Your task to perform on an android device: Is it going to rain tomorrow? Image 0: 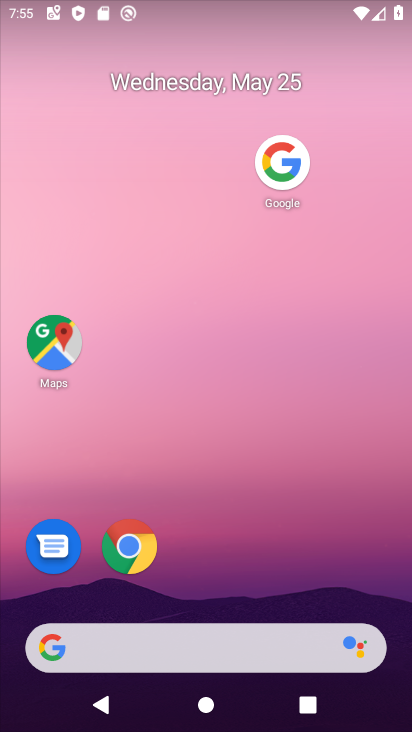
Step 0: click (61, 649)
Your task to perform on an android device: Is it going to rain tomorrow? Image 1: 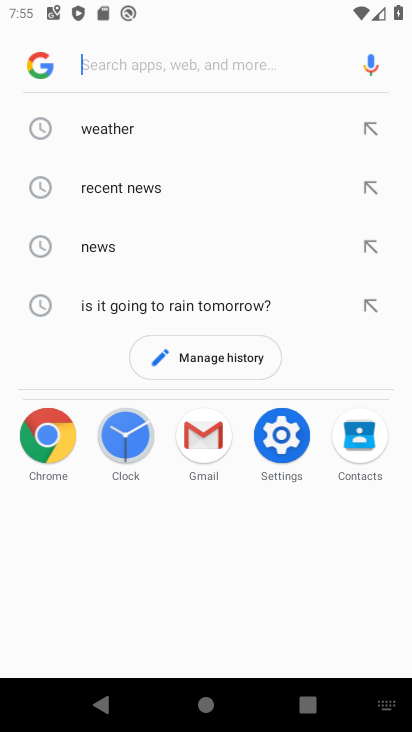
Step 1: click (107, 126)
Your task to perform on an android device: Is it going to rain tomorrow? Image 2: 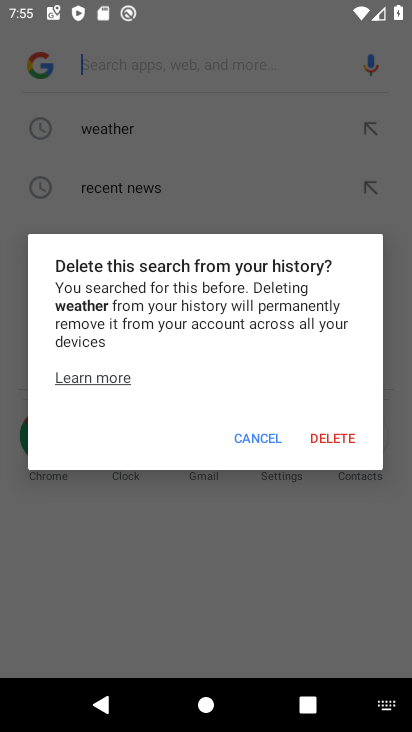
Step 2: click (141, 123)
Your task to perform on an android device: Is it going to rain tomorrow? Image 3: 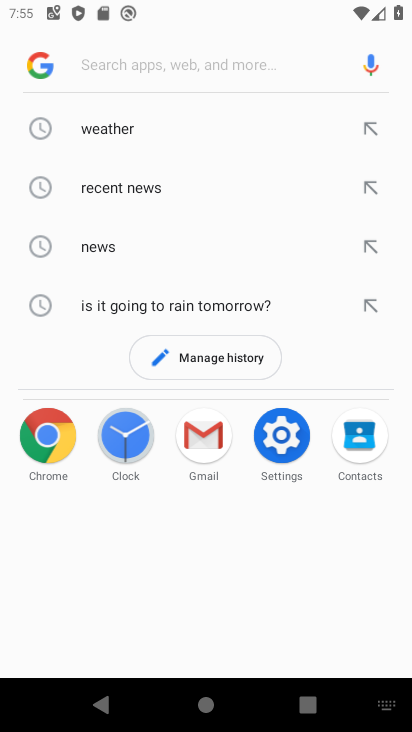
Step 3: click (108, 123)
Your task to perform on an android device: Is it going to rain tomorrow? Image 4: 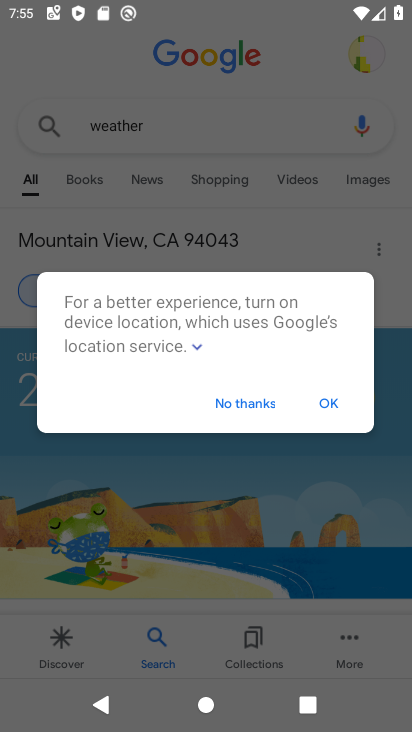
Step 4: click (323, 399)
Your task to perform on an android device: Is it going to rain tomorrow? Image 5: 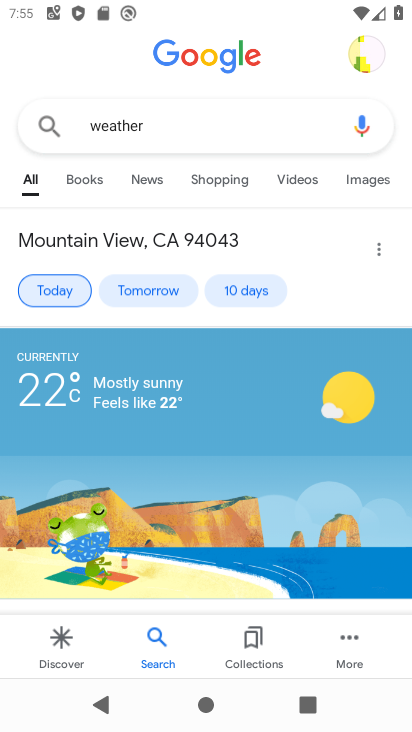
Step 5: click (158, 289)
Your task to perform on an android device: Is it going to rain tomorrow? Image 6: 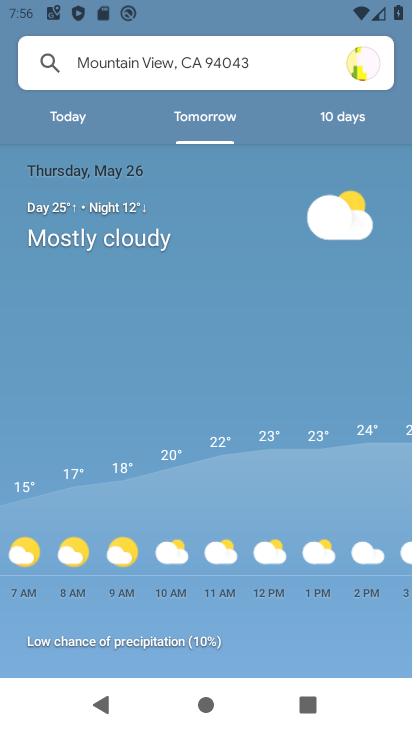
Step 6: task complete